Your task to perform on an android device: turn pop-ups off in chrome Image 0: 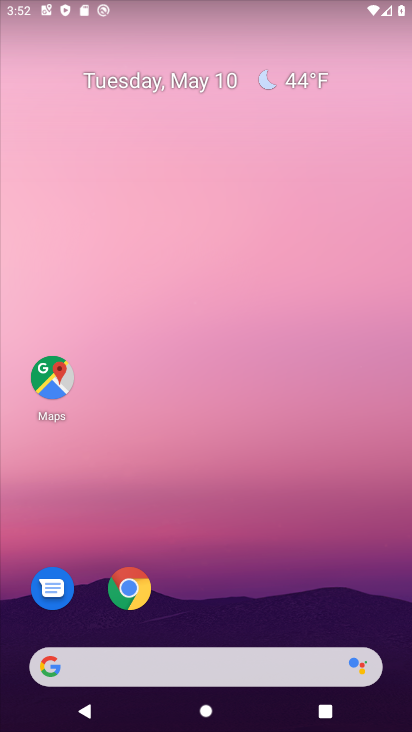
Step 0: click (135, 581)
Your task to perform on an android device: turn pop-ups off in chrome Image 1: 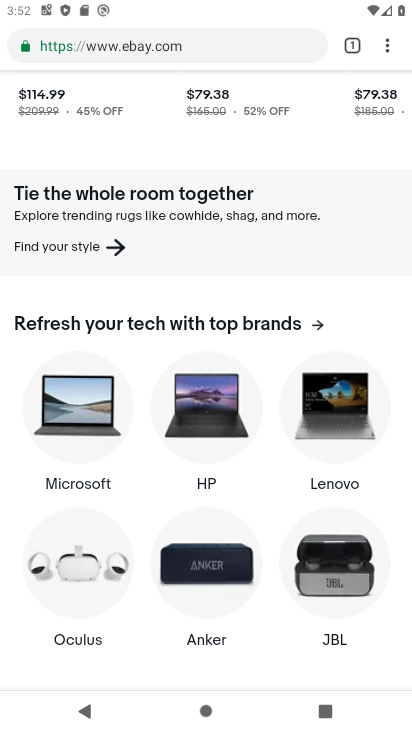
Step 1: click (388, 45)
Your task to perform on an android device: turn pop-ups off in chrome Image 2: 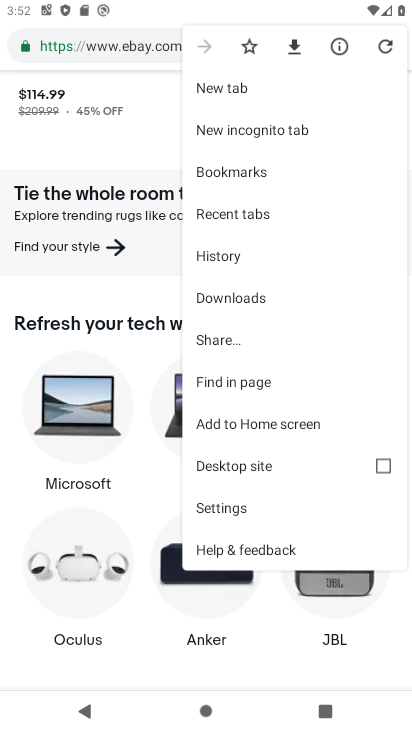
Step 2: click (255, 505)
Your task to perform on an android device: turn pop-ups off in chrome Image 3: 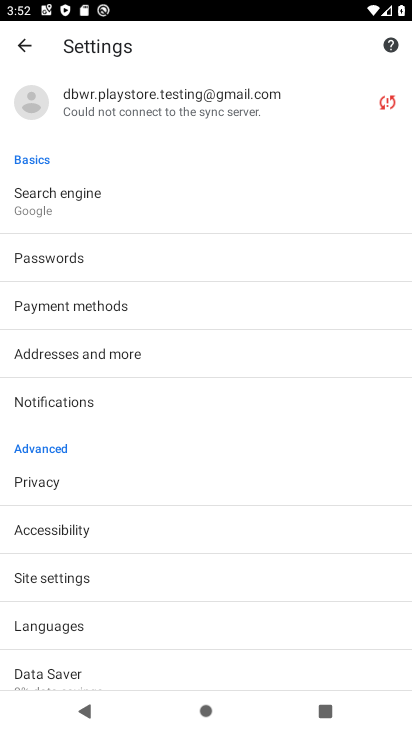
Step 3: click (87, 581)
Your task to perform on an android device: turn pop-ups off in chrome Image 4: 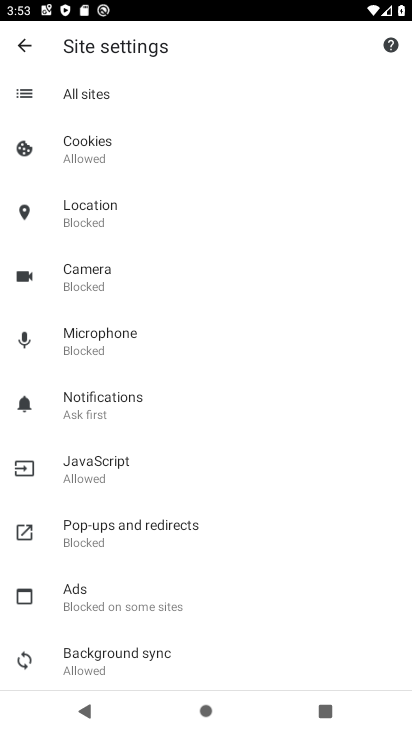
Step 4: click (123, 530)
Your task to perform on an android device: turn pop-ups off in chrome Image 5: 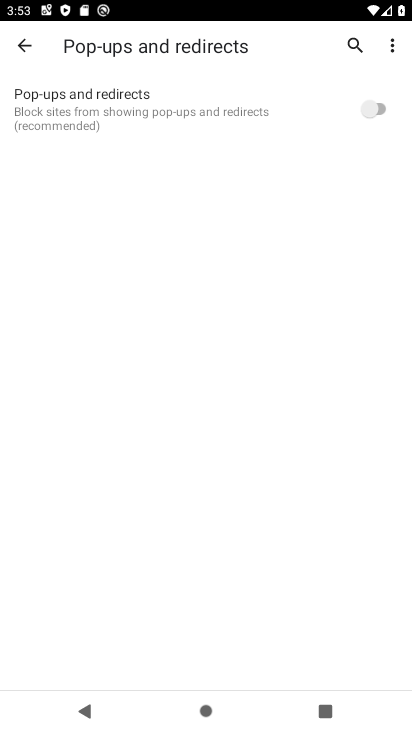
Step 5: task complete